Your task to perform on an android device: Open Chrome and go to settings Image 0: 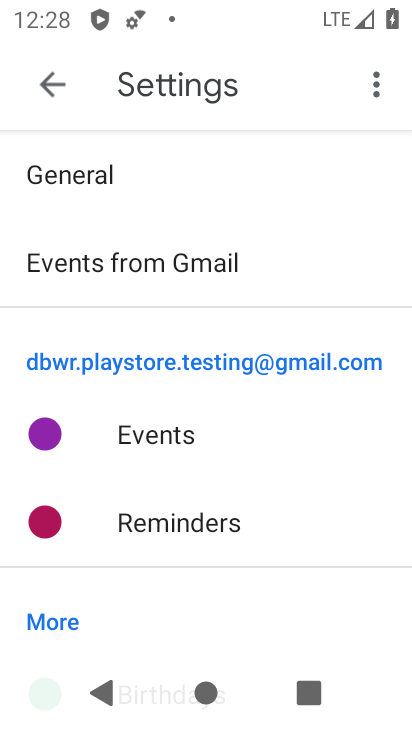
Step 0: press home button
Your task to perform on an android device: Open Chrome and go to settings Image 1: 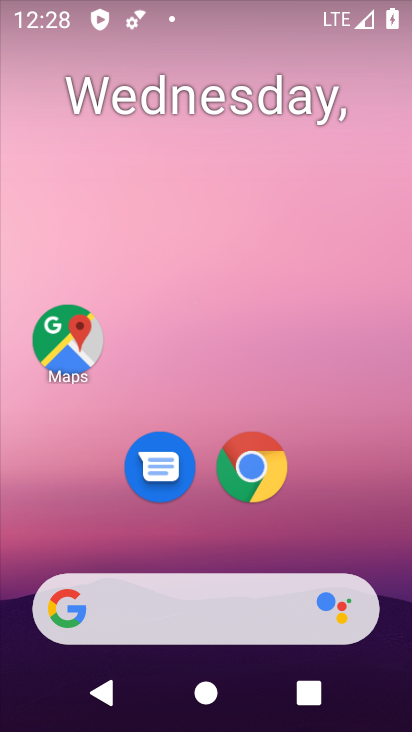
Step 1: drag from (350, 522) to (333, 144)
Your task to perform on an android device: Open Chrome and go to settings Image 2: 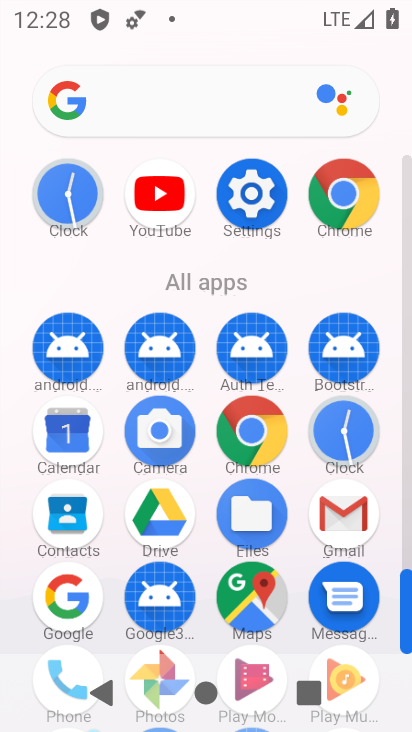
Step 2: click (242, 443)
Your task to perform on an android device: Open Chrome and go to settings Image 3: 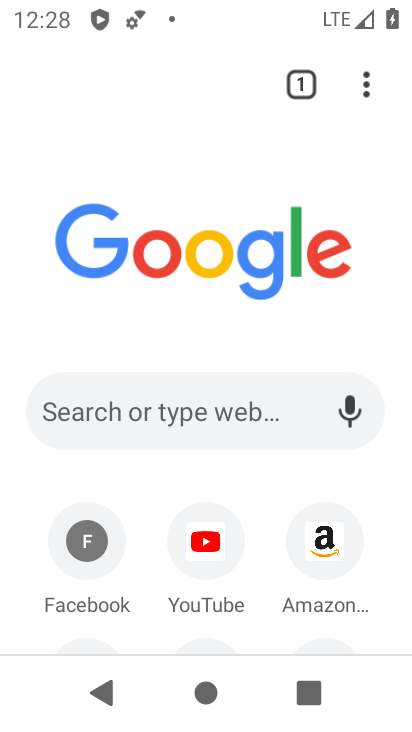
Step 3: click (367, 91)
Your task to perform on an android device: Open Chrome and go to settings Image 4: 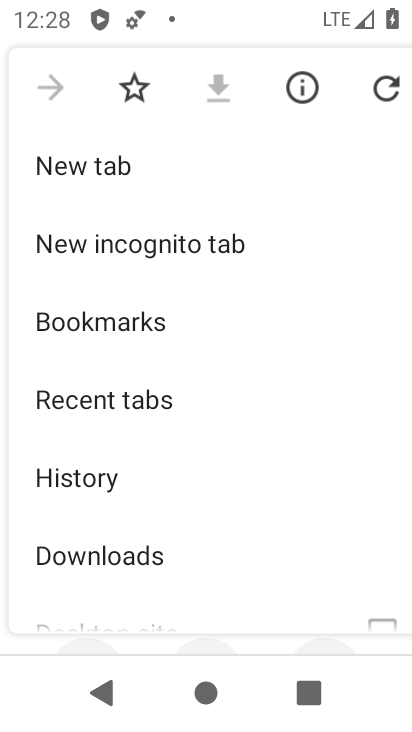
Step 4: drag from (330, 442) to (347, 308)
Your task to perform on an android device: Open Chrome and go to settings Image 5: 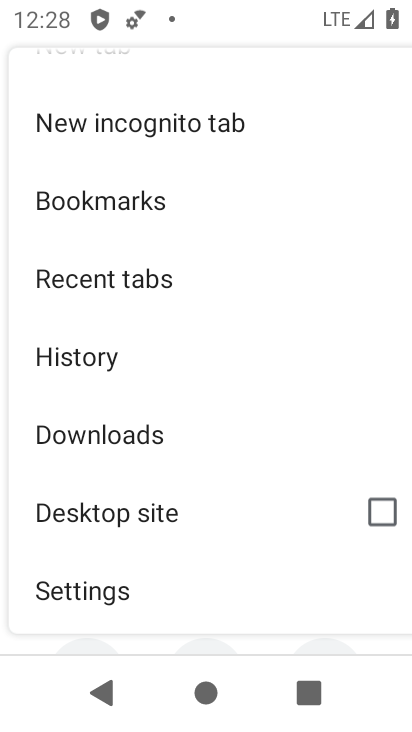
Step 5: drag from (298, 446) to (315, 335)
Your task to perform on an android device: Open Chrome and go to settings Image 6: 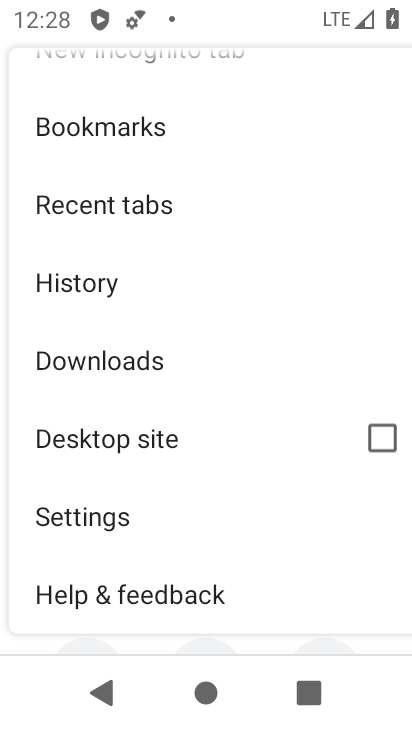
Step 6: drag from (290, 460) to (297, 331)
Your task to perform on an android device: Open Chrome and go to settings Image 7: 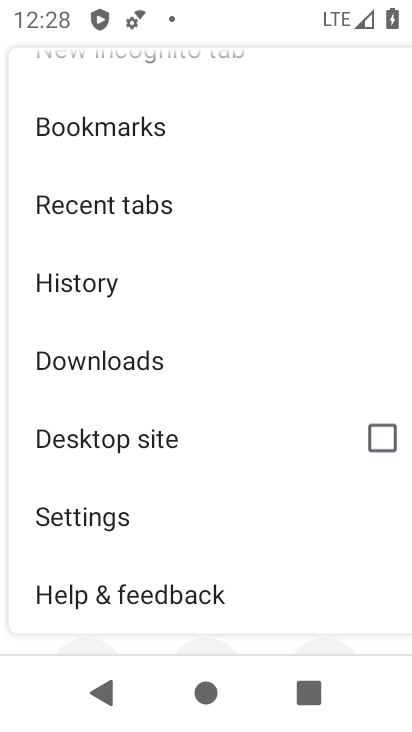
Step 7: drag from (274, 200) to (276, 367)
Your task to perform on an android device: Open Chrome and go to settings Image 8: 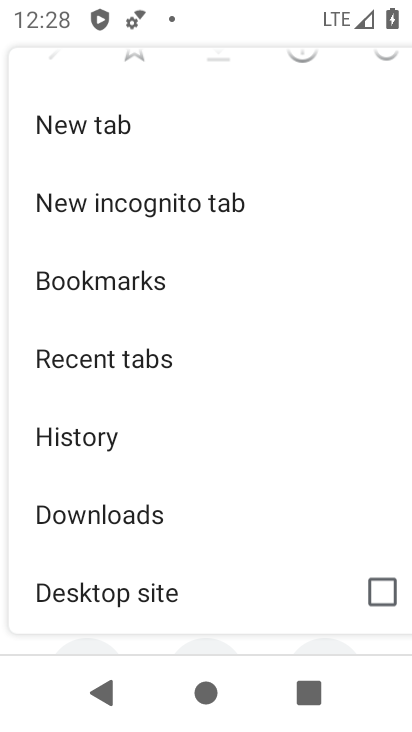
Step 8: drag from (278, 184) to (288, 353)
Your task to perform on an android device: Open Chrome and go to settings Image 9: 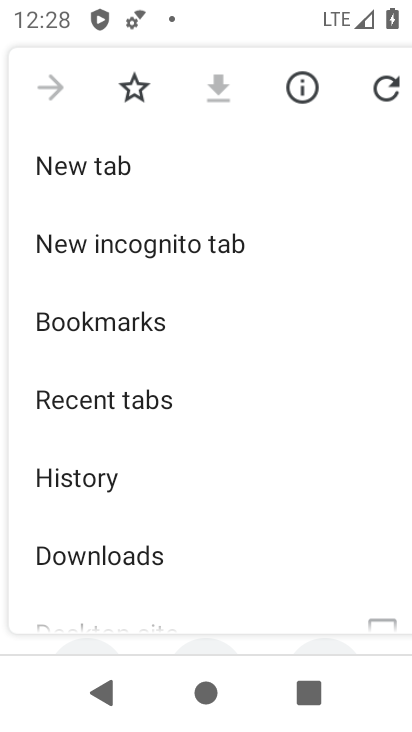
Step 9: drag from (270, 381) to (275, 153)
Your task to perform on an android device: Open Chrome and go to settings Image 10: 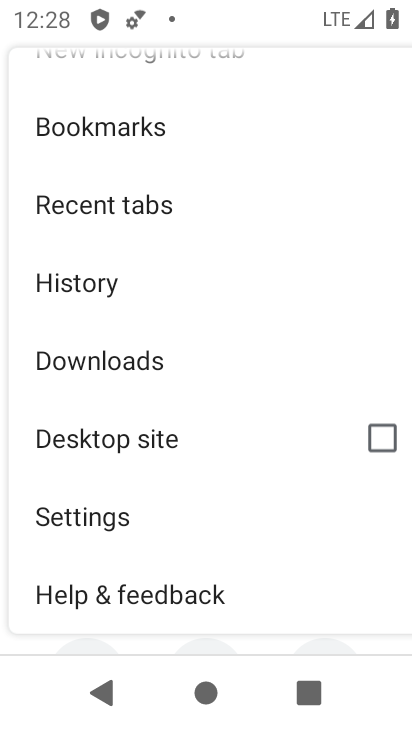
Step 10: click (166, 532)
Your task to perform on an android device: Open Chrome and go to settings Image 11: 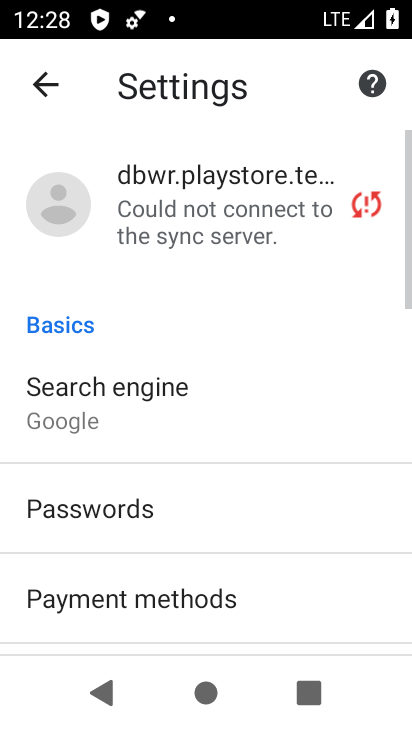
Step 11: task complete